Your task to perform on an android device: Go to Google Image 0: 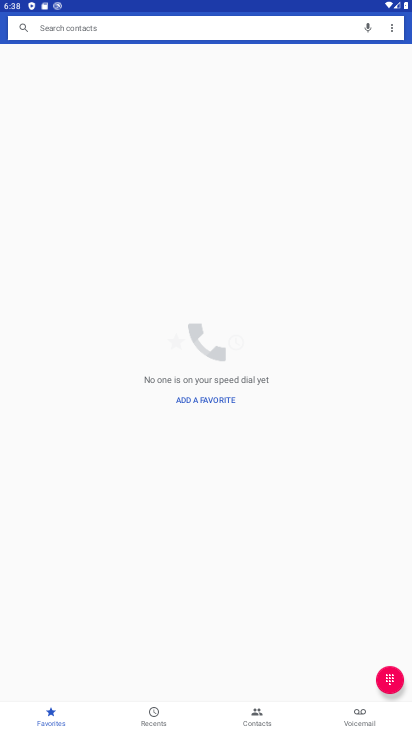
Step 0: press home button
Your task to perform on an android device: Go to Google Image 1: 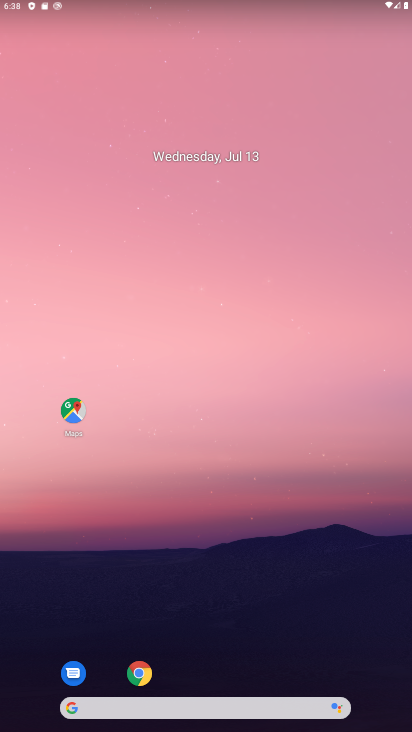
Step 1: drag from (232, 616) to (321, 107)
Your task to perform on an android device: Go to Google Image 2: 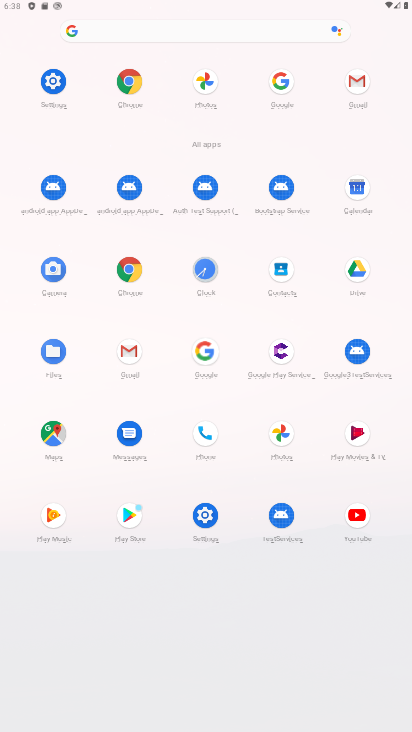
Step 2: click (288, 92)
Your task to perform on an android device: Go to Google Image 3: 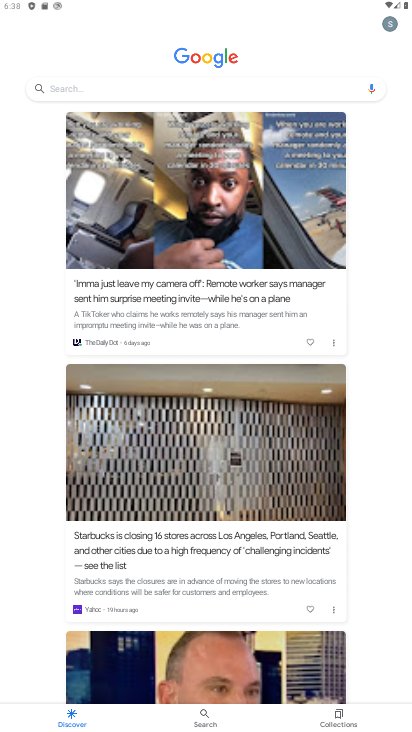
Step 3: task complete